Your task to perform on an android device: turn off sleep mode Image 0: 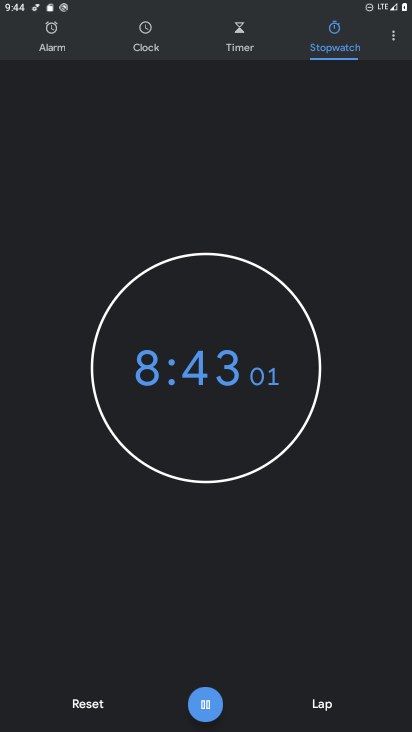
Step 0: press home button
Your task to perform on an android device: turn off sleep mode Image 1: 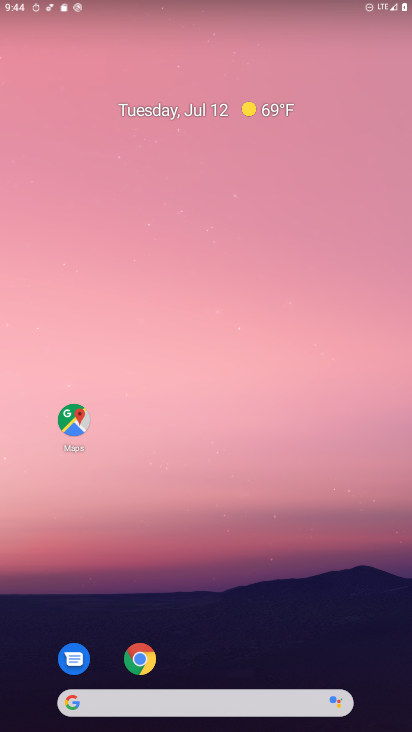
Step 1: drag from (257, 710) to (285, 202)
Your task to perform on an android device: turn off sleep mode Image 2: 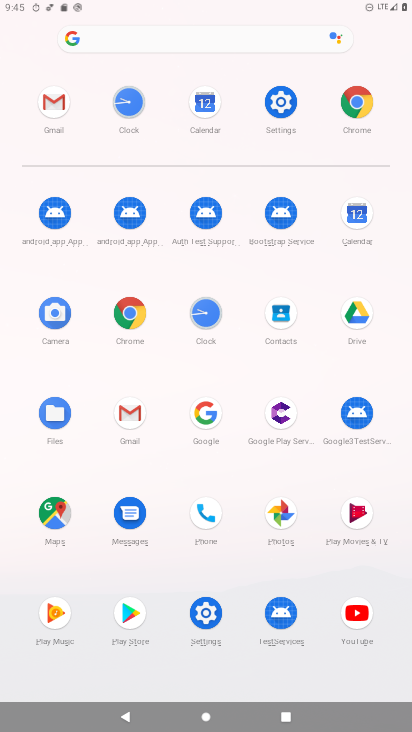
Step 2: click (279, 102)
Your task to perform on an android device: turn off sleep mode Image 3: 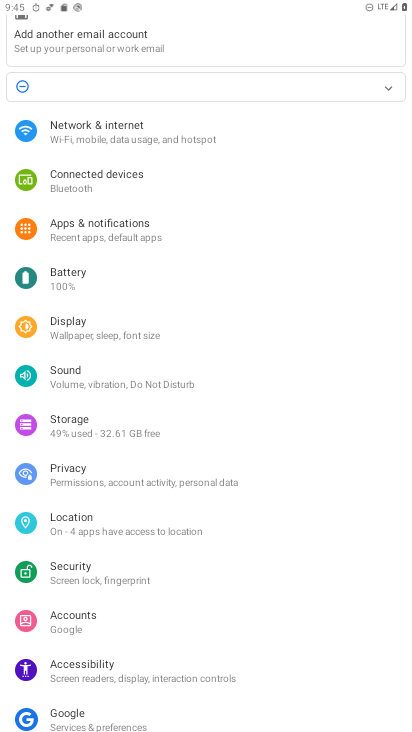
Step 3: click (115, 338)
Your task to perform on an android device: turn off sleep mode Image 4: 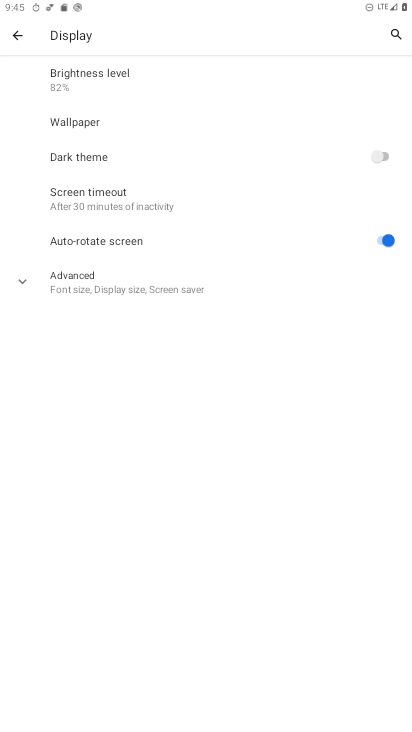
Step 4: task complete